Your task to perform on an android device: Is it going to rain tomorrow? Image 0: 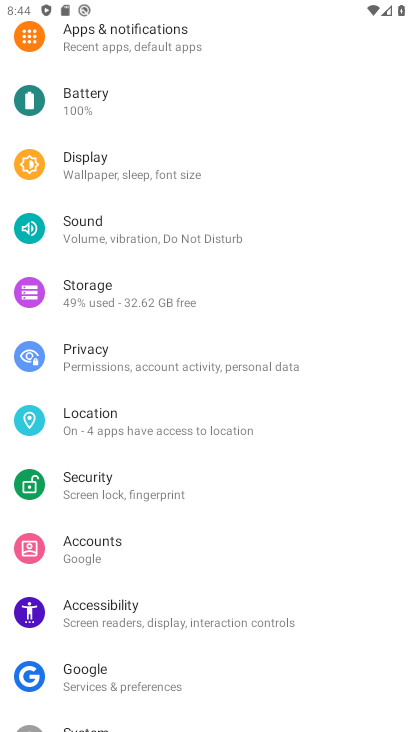
Step 0: press home button
Your task to perform on an android device: Is it going to rain tomorrow? Image 1: 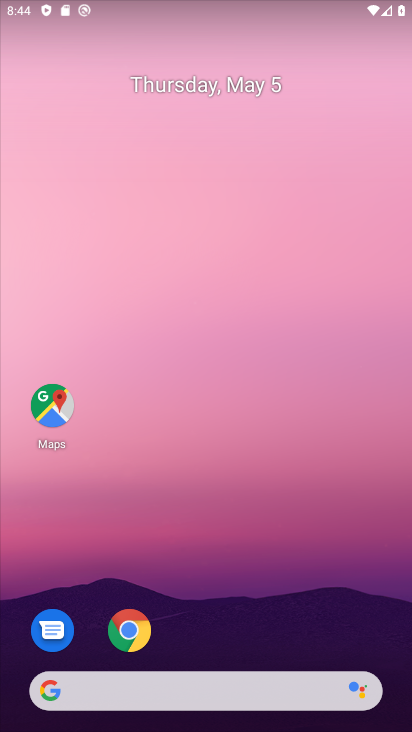
Step 1: drag from (205, 652) to (176, 34)
Your task to perform on an android device: Is it going to rain tomorrow? Image 2: 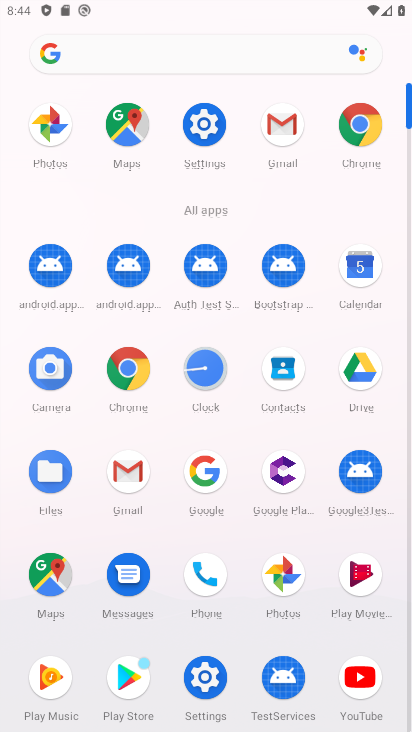
Step 2: click (148, 59)
Your task to perform on an android device: Is it going to rain tomorrow? Image 3: 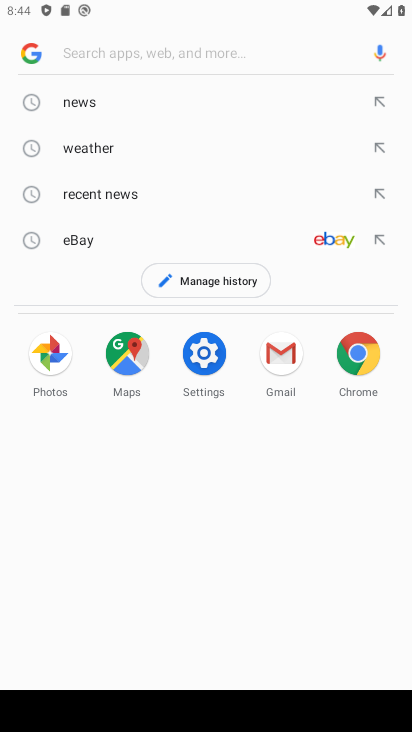
Step 3: type "is it going to rain tomorrow "
Your task to perform on an android device: Is it going to rain tomorrow? Image 4: 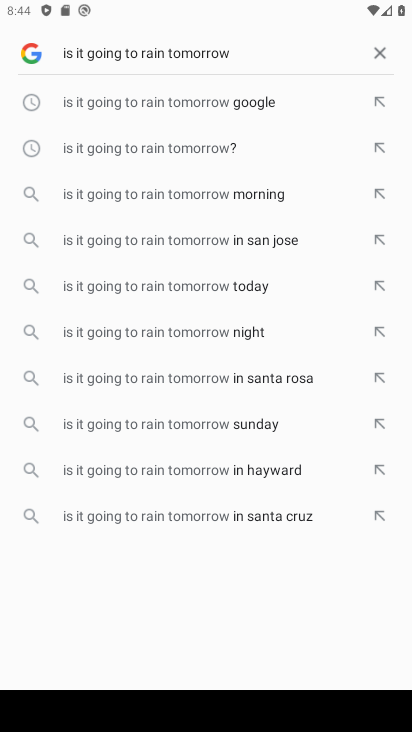
Step 4: click (124, 148)
Your task to perform on an android device: Is it going to rain tomorrow? Image 5: 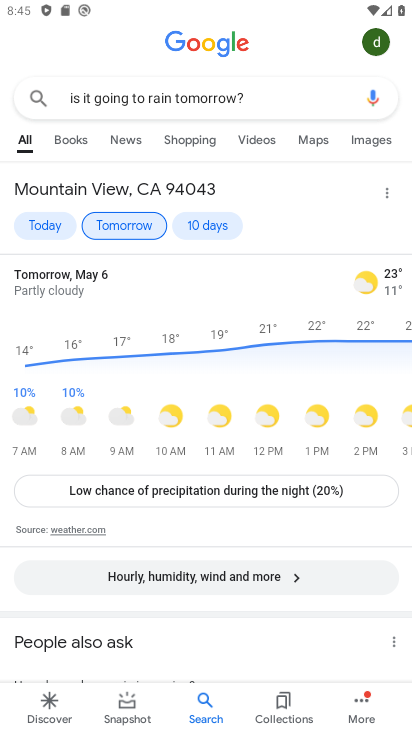
Step 5: task complete